Your task to perform on an android device: allow cookies in the chrome app Image 0: 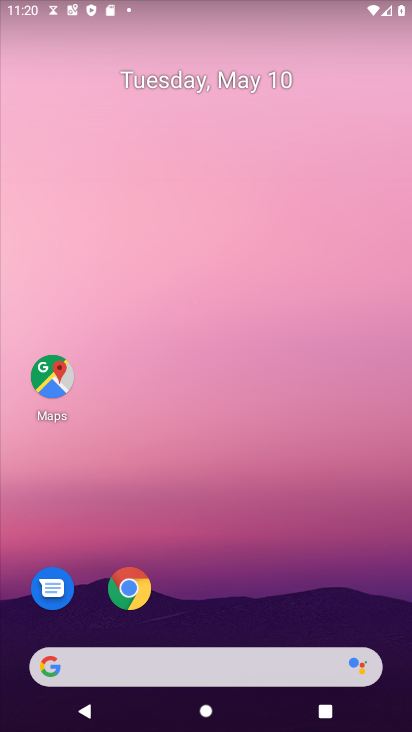
Step 0: drag from (285, 550) to (120, 110)
Your task to perform on an android device: allow cookies in the chrome app Image 1: 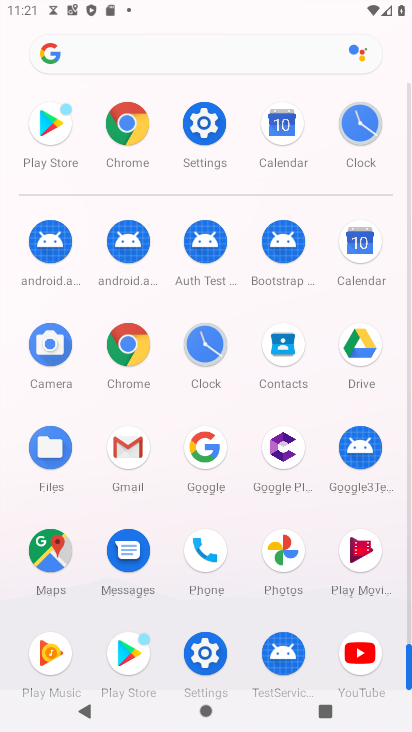
Step 1: click (124, 120)
Your task to perform on an android device: allow cookies in the chrome app Image 2: 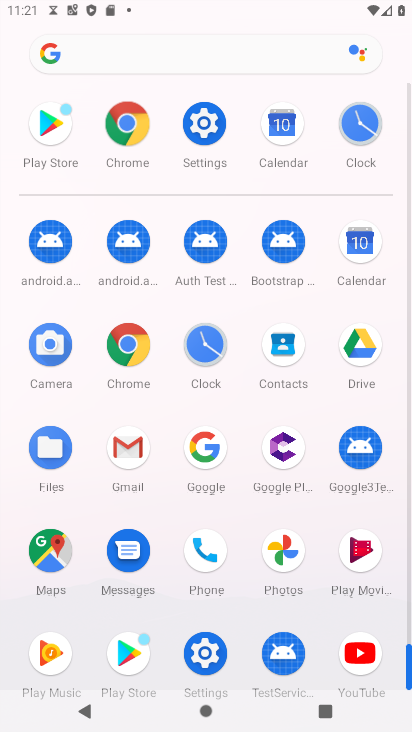
Step 2: click (124, 120)
Your task to perform on an android device: allow cookies in the chrome app Image 3: 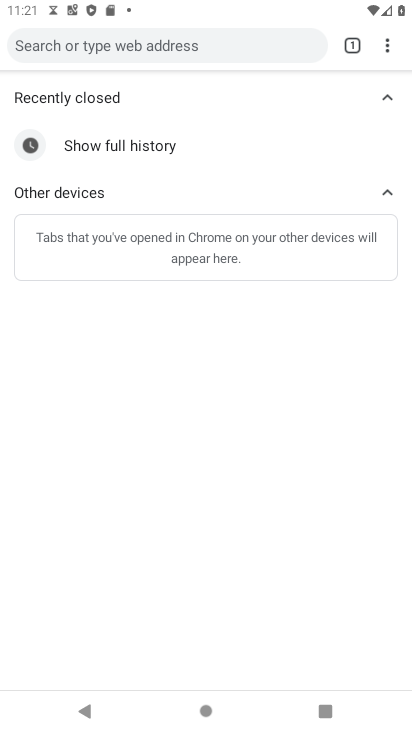
Step 3: drag from (387, 46) to (224, 393)
Your task to perform on an android device: allow cookies in the chrome app Image 4: 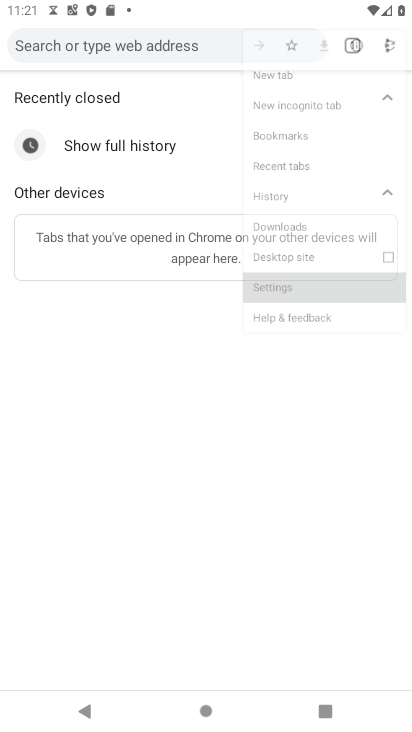
Step 4: click (223, 392)
Your task to perform on an android device: allow cookies in the chrome app Image 5: 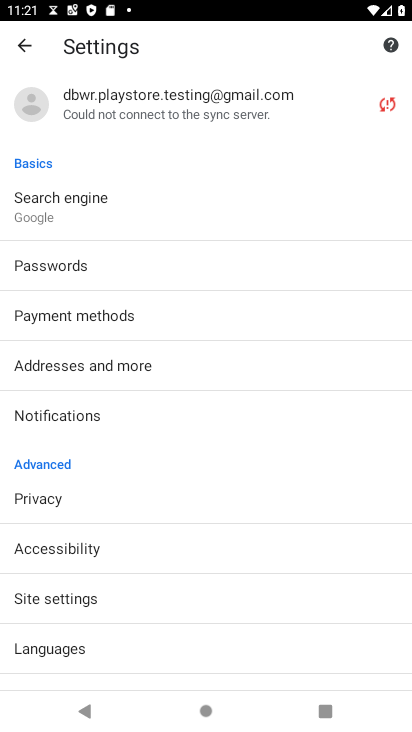
Step 5: click (54, 593)
Your task to perform on an android device: allow cookies in the chrome app Image 6: 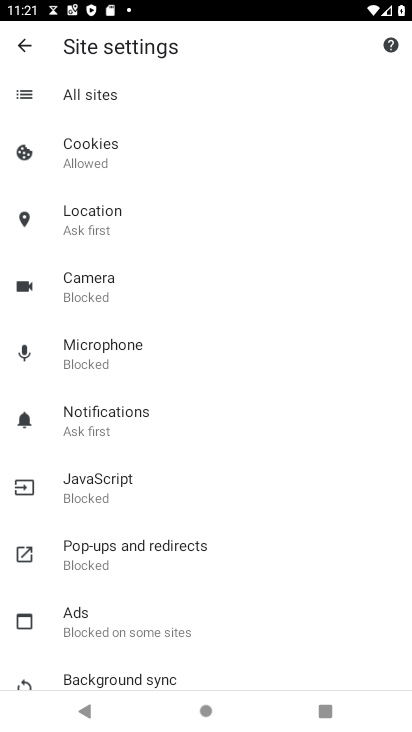
Step 6: click (72, 144)
Your task to perform on an android device: allow cookies in the chrome app Image 7: 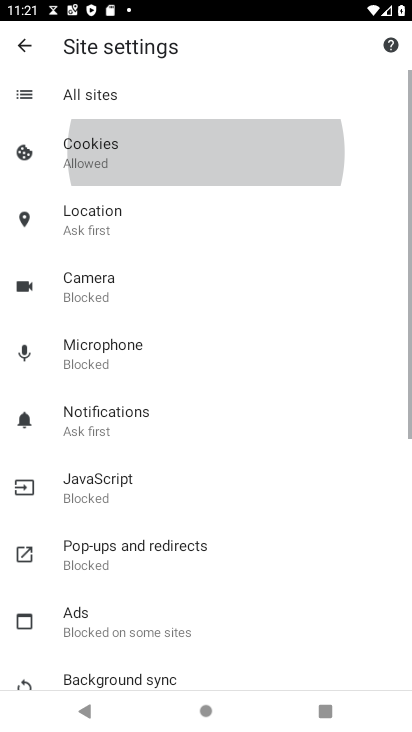
Step 7: click (72, 144)
Your task to perform on an android device: allow cookies in the chrome app Image 8: 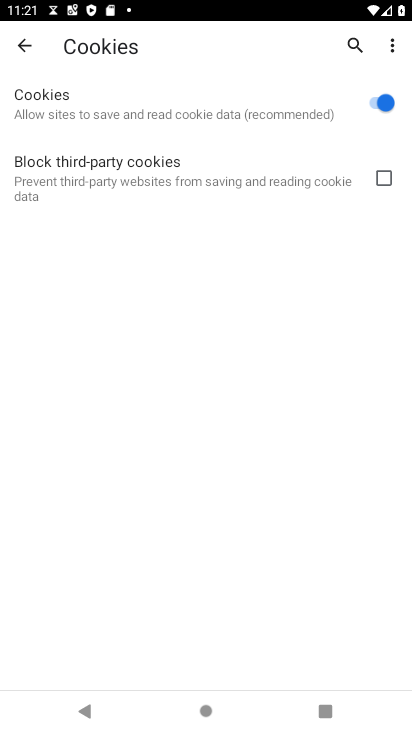
Step 8: task complete